Your task to perform on an android device: turn on showing notifications on the lock screen Image 0: 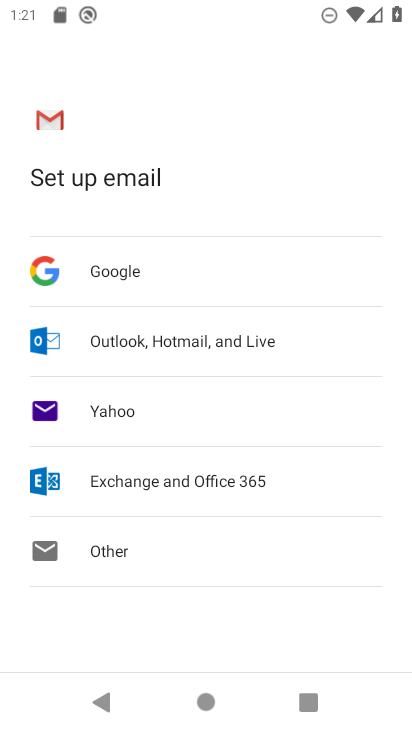
Step 0: press home button
Your task to perform on an android device: turn on showing notifications on the lock screen Image 1: 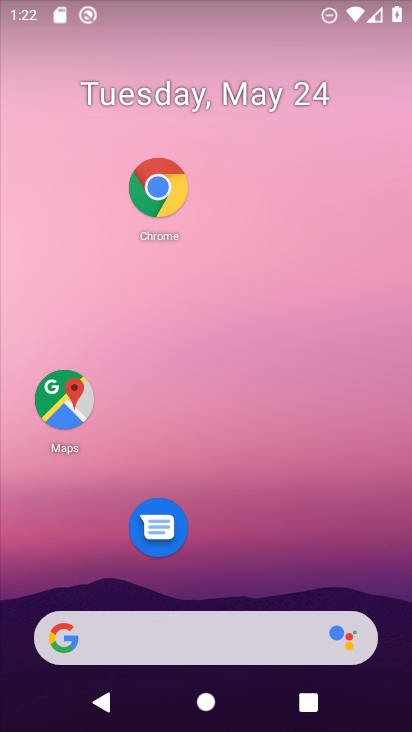
Step 1: drag from (196, 124) to (196, 78)
Your task to perform on an android device: turn on showing notifications on the lock screen Image 2: 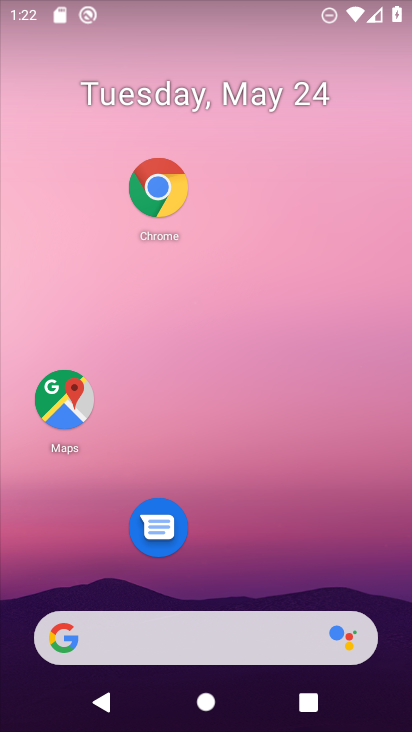
Step 2: drag from (223, 545) to (128, 0)
Your task to perform on an android device: turn on showing notifications on the lock screen Image 3: 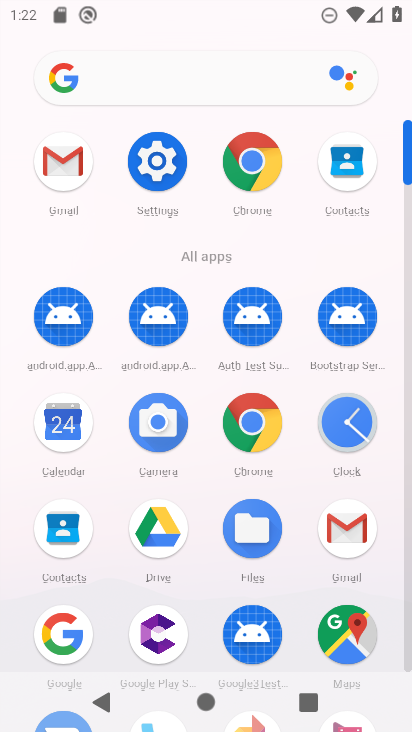
Step 3: click (158, 167)
Your task to perform on an android device: turn on showing notifications on the lock screen Image 4: 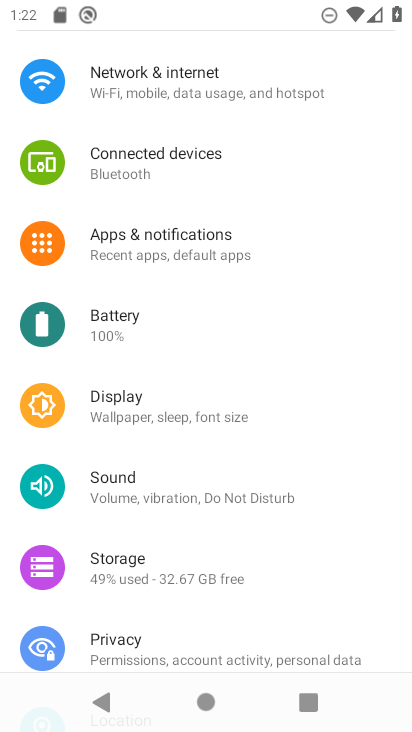
Step 4: drag from (156, 178) to (153, 450)
Your task to perform on an android device: turn on showing notifications on the lock screen Image 5: 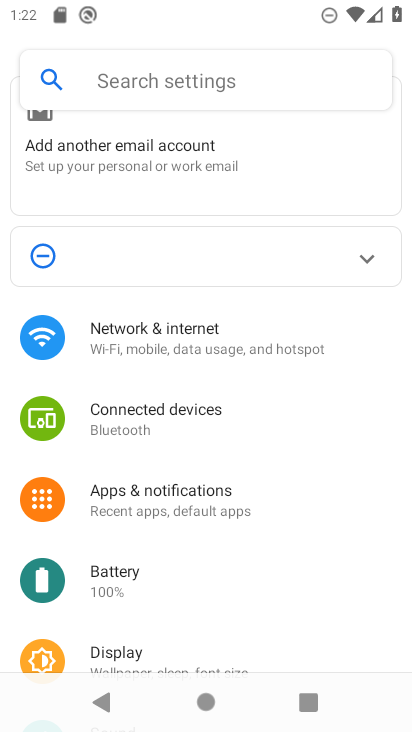
Step 5: click (133, 507)
Your task to perform on an android device: turn on showing notifications on the lock screen Image 6: 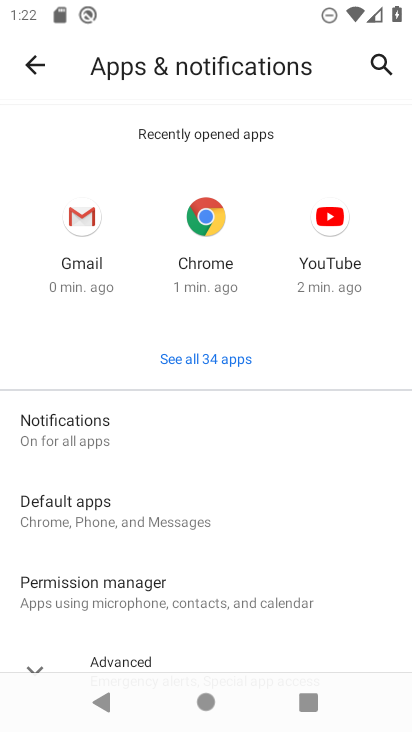
Step 6: click (66, 436)
Your task to perform on an android device: turn on showing notifications on the lock screen Image 7: 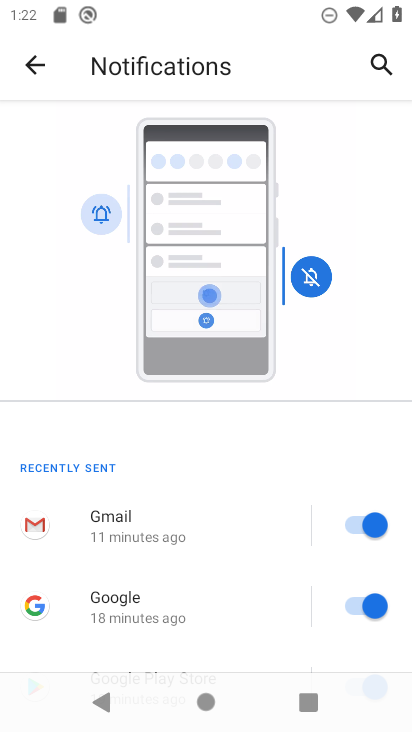
Step 7: drag from (185, 611) to (179, 343)
Your task to perform on an android device: turn on showing notifications on the lock screen Image 8: 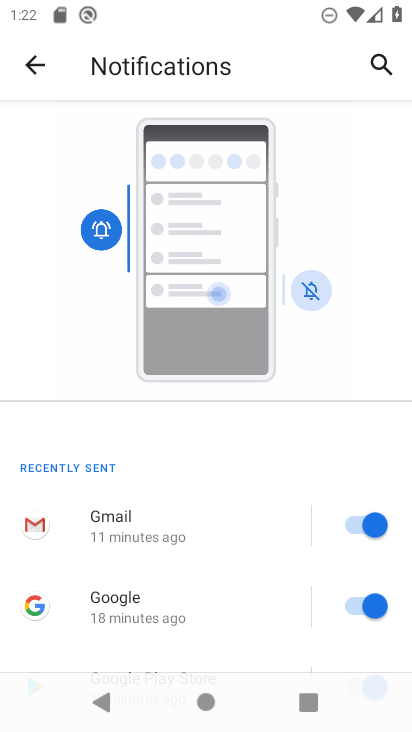
Step 8: drag from (127, 430) to (141, 37)
Your task to perform on an android device: turn on showing notifications on the lock screen Image 9: 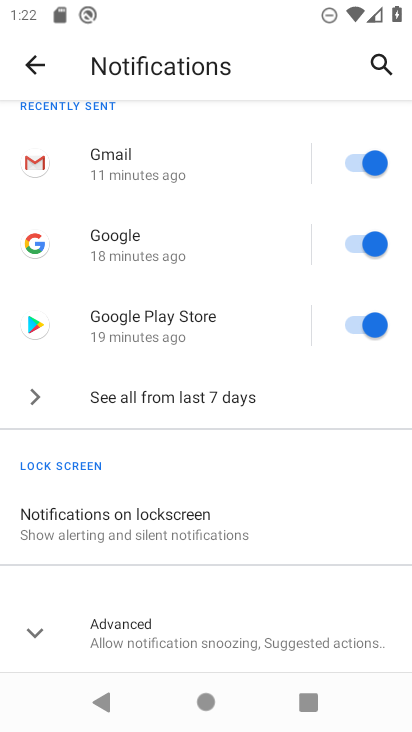
Step 9: click (128, 537)
Your task to perform on an android device: turn on showing notifications on the lock screen Image 10: 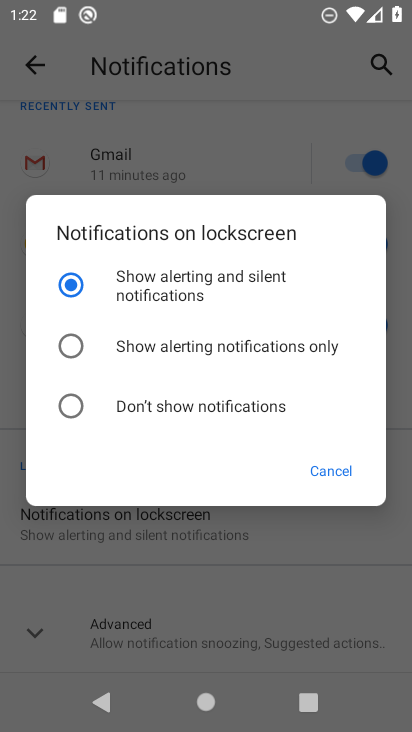
Step 10: task complete